Your task to perform on an android device: uninstall "Flipkart Online Shopping App" Image 0: 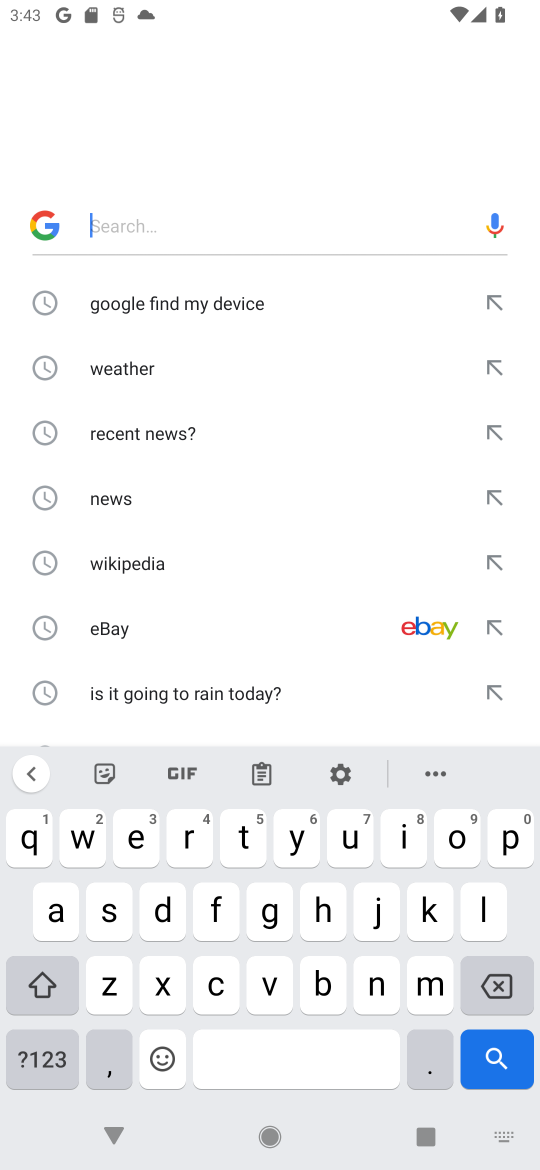
Step 0: press home button
Your task to perform on an android device: uninstall "Flipkart Online Shopping App" Image 1: 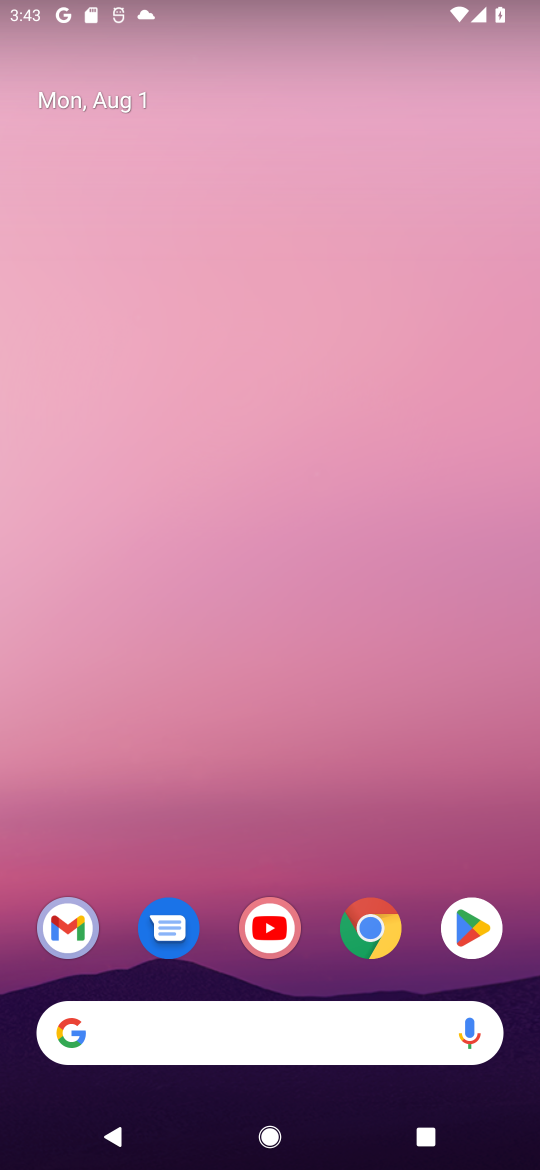
Step 1: click (466, 943)
Your task to perform on an android device: uninstall "Flipkart Online Shopping App" Image 2: 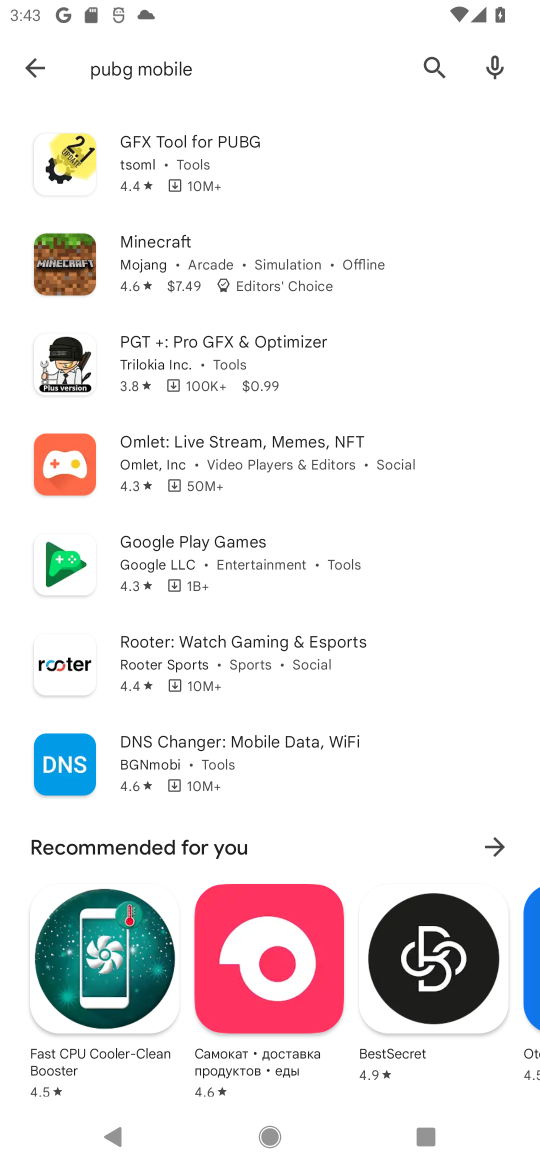
Step 2: click (406, 84)
Your task to perform on an android device: uninstall "Flipkart Online Shopping App" Image 3: 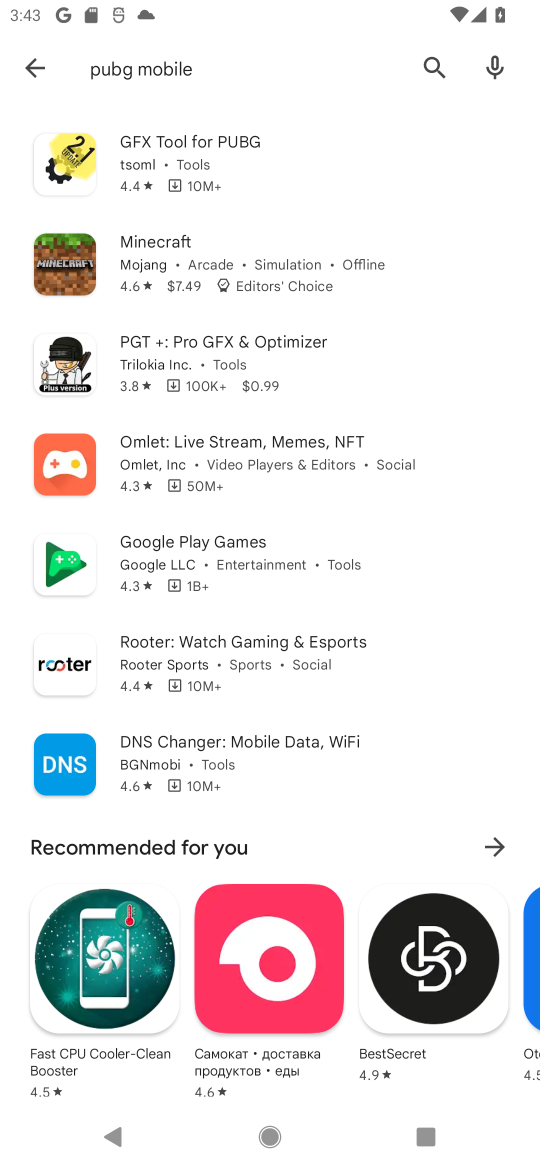
Step 3: click (414, 72)
Your task to perform on an android device: uninstall "Flipkart Online Shopping App" Image 4: 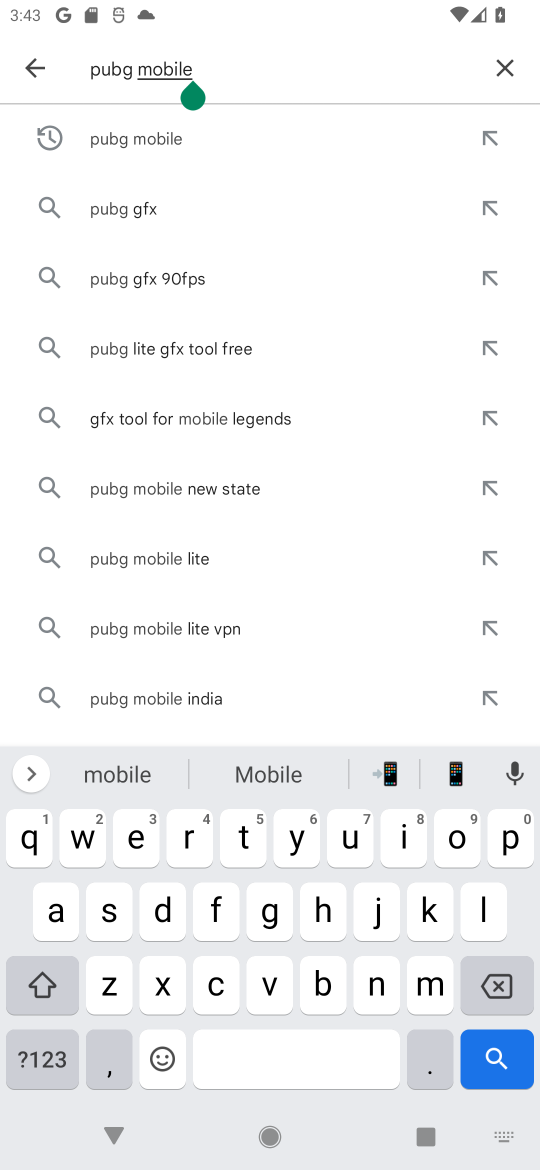
Step 4: click (503, 69)
Your task to perform on an android device: uninstall "Flipkart Online Shopping App" Image 5: 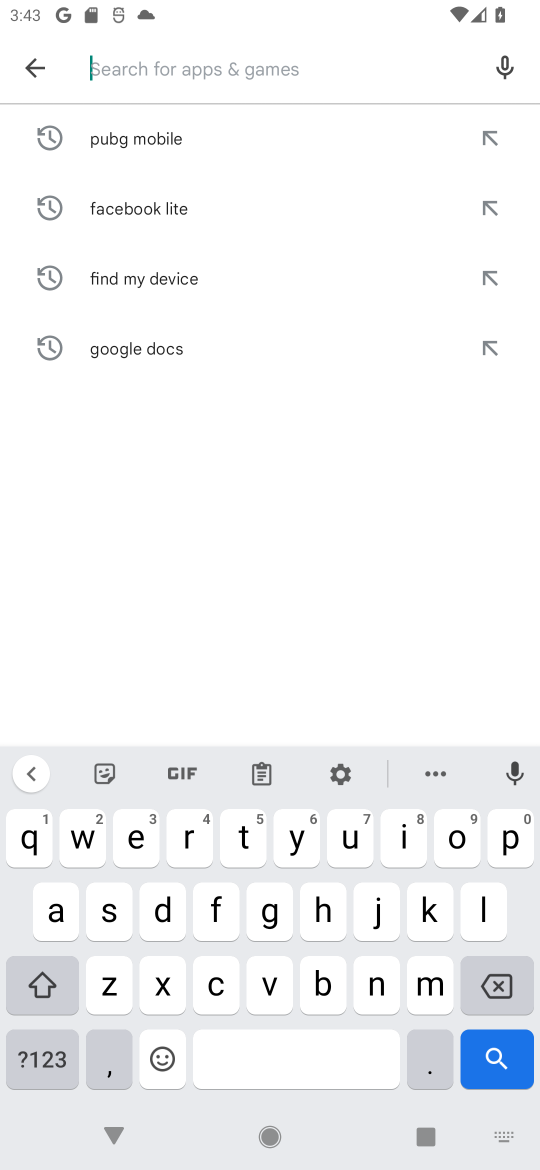
Step 5: click (218, 915)
Your task to perform on an android device: uninstall "Flipkart Online Shopping App" Image 6: 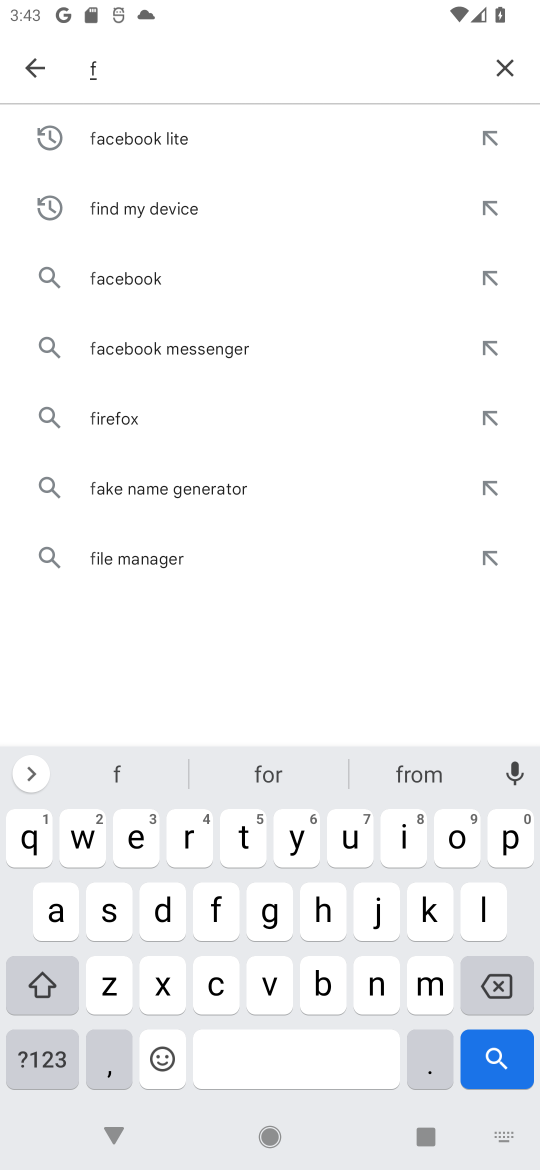
Step 6: click (476, 910)
Your task to perform on an android device: uninstall "Flipkart Online Shopping App" Image 7: 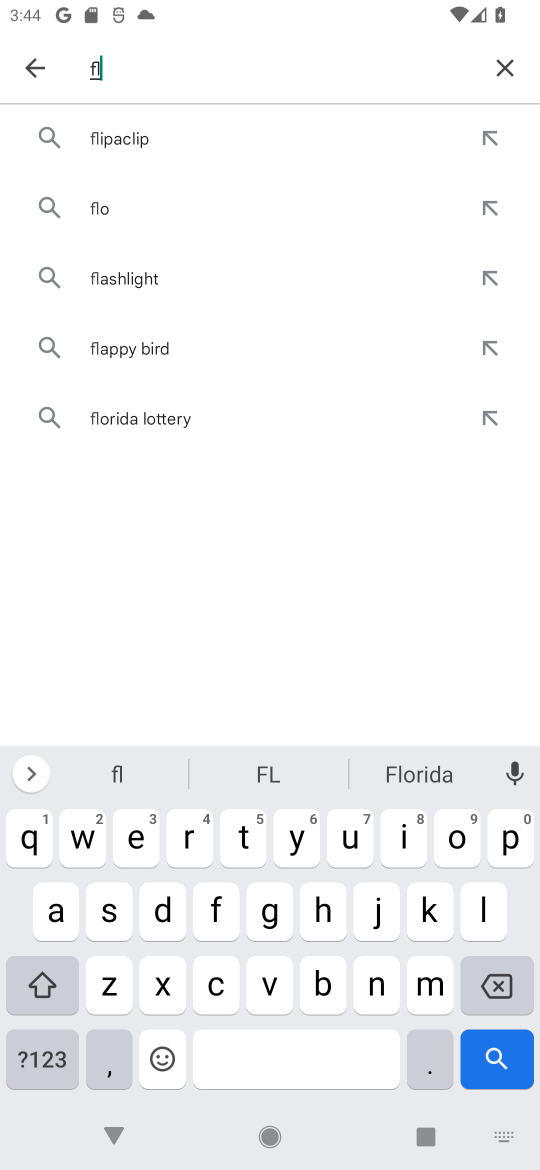
Step 7: click (393, 841)
Your task to perform on an android device: uninstall "Flipkart Online Shopping App" Image 8: 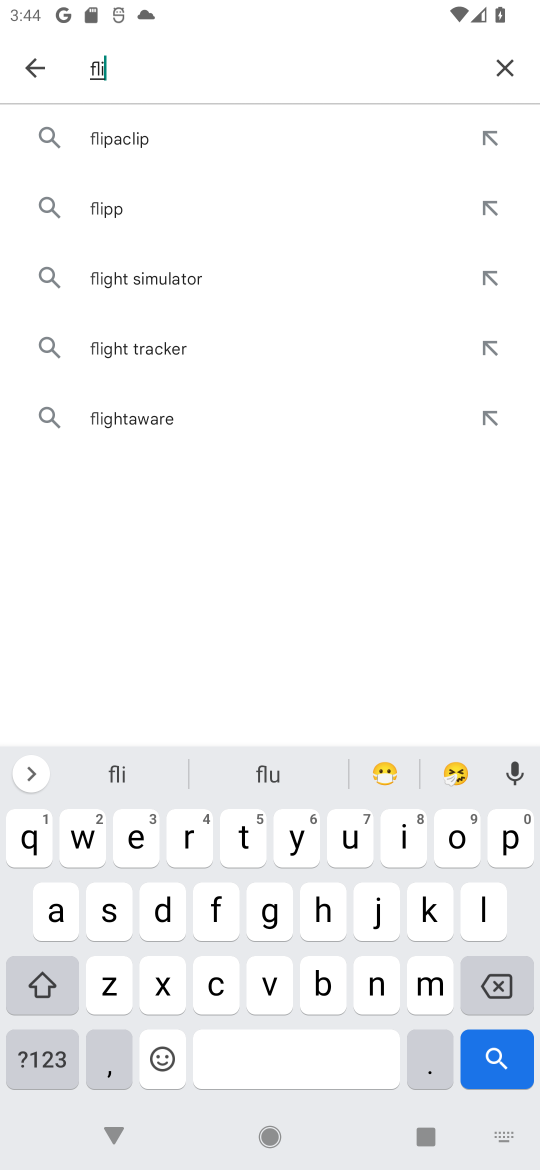
Step 8: click (499, 842)
Your task to perform on an android device: uninstall "Flipkart Online Shopping App" Image 9: 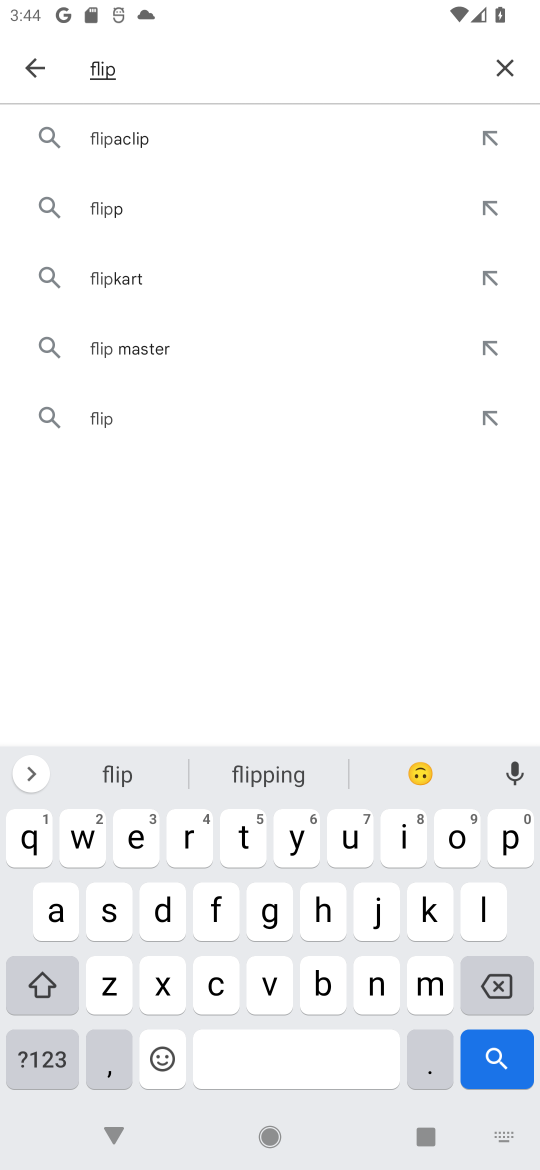
Step 9: click (105, 278)
Your task to perform on an android device: uninstall "Flipkart Online Shopping App" Image 10: 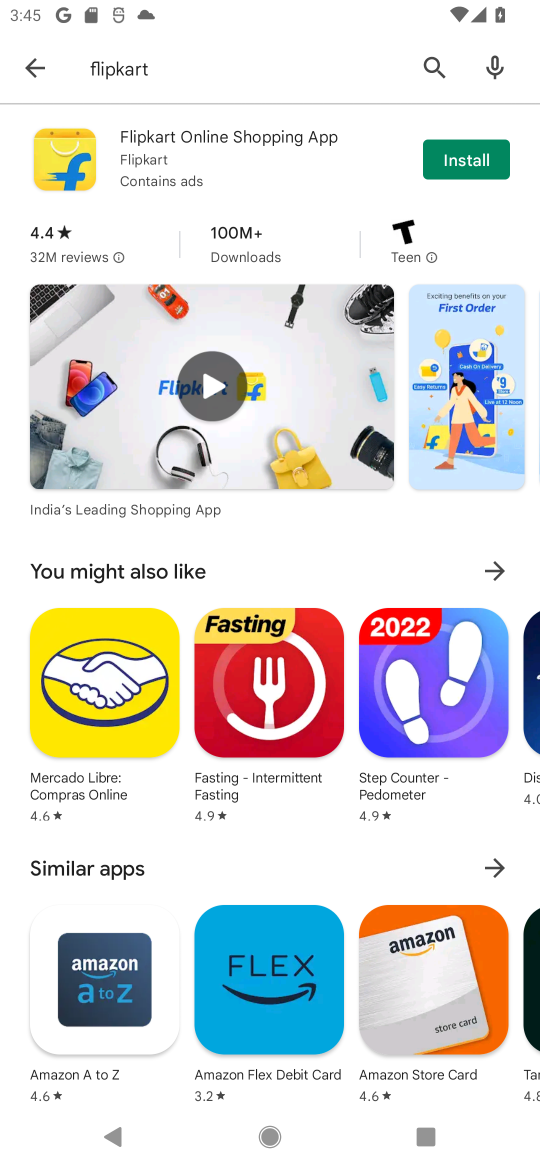
Step 10: task complete